Your task to perform on an android device: toggle location history Image 0: 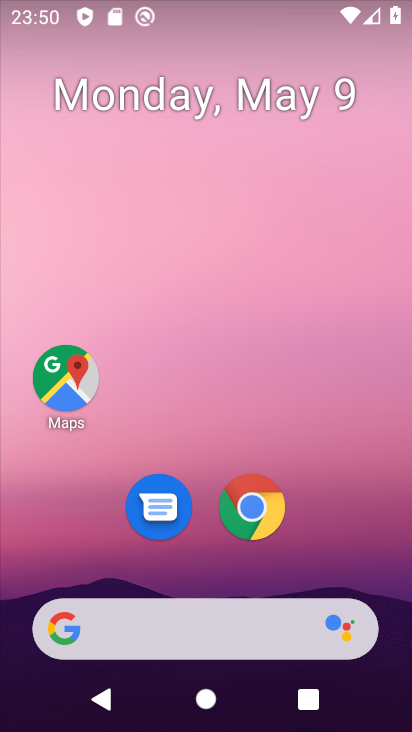
Step 0: drag from (355, 555) to (301, 167)
Your task to perform on an android device: toggle location history Image 1: 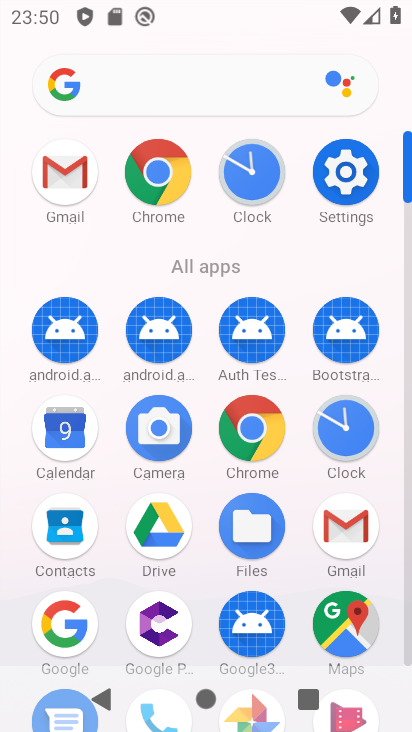
Step 1: drag from (293, 288) to (276, 125)
Your task to perform on an android device: toggle location history Image 2: 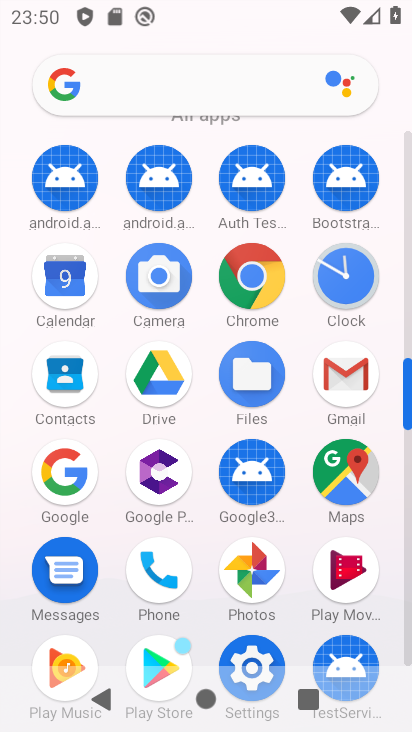
Step 2: click (258, 643)
Your task to perform on an android device: toggle location history Image 3: 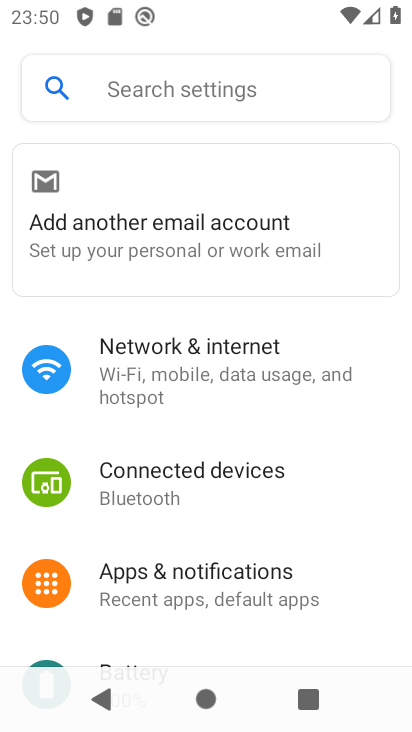
Step 3: drag from (235, 579) to (193, 264)
Your task to perform on an android device: toggle location history Image 4: 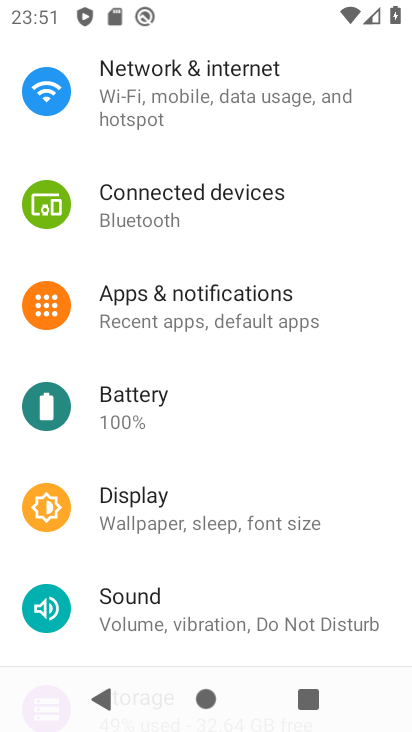
Step 4: drag from (200, 573) to (185, 348)
Your task to perform on an android device: toggle location history Image 5: 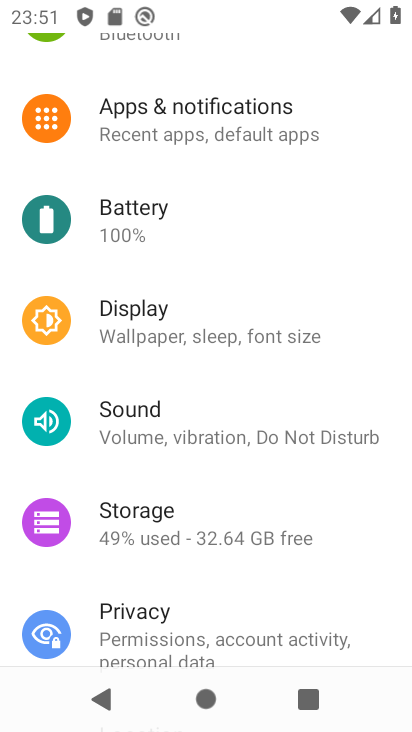
Step 5: drag from (202, 576) to (186, 361)
Your task to perform on an android device: toggle location history Image 6: 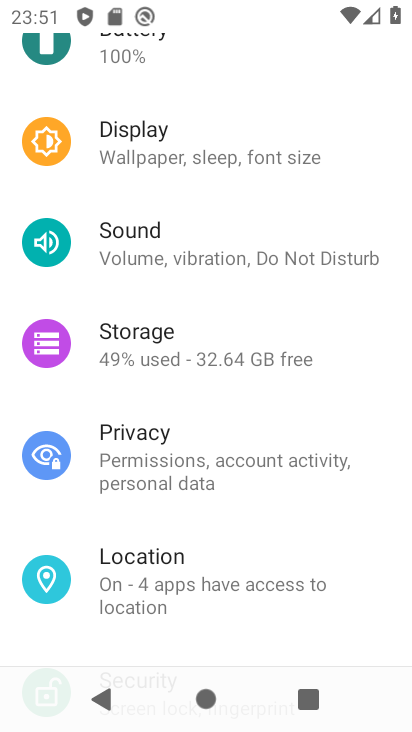
Step 6: click (160, 560)
Your task to perform on an android device: toggle location history Image 7: 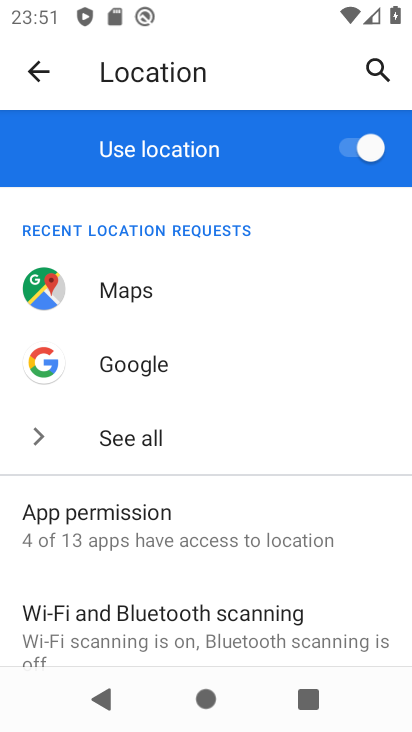
Step 7: drag from (229, 577) to (208, 374)
Your task to perform on an android device: toggle location history Image 8: 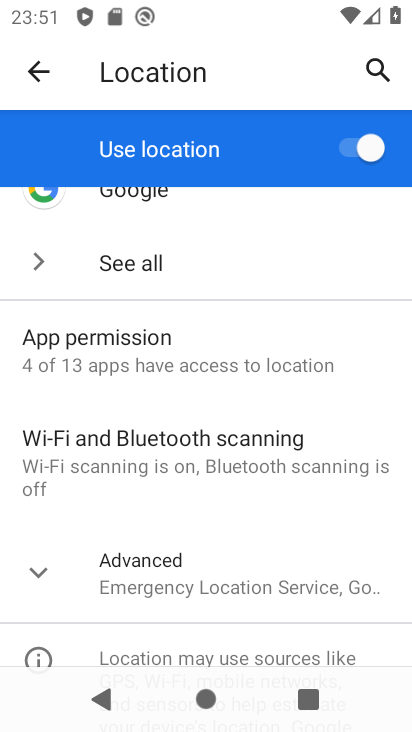
Step 8: click (173, 573)
Your task to perform on an android device: toggle location history Image 9: 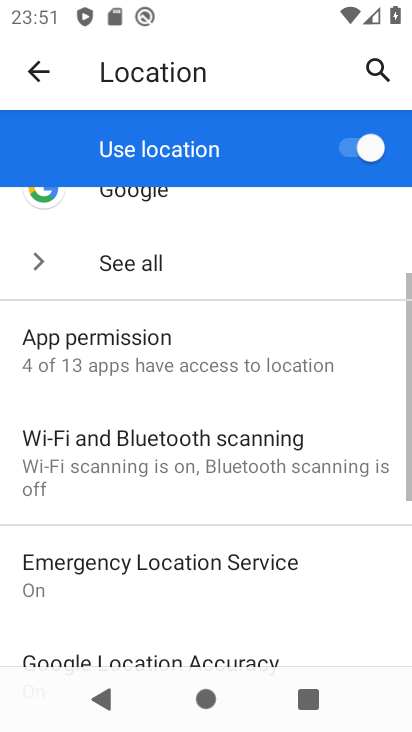
Step 9: drag from (193, 582) to (191, 363)
Your task to perform on an android device: toggle location history Image 10: 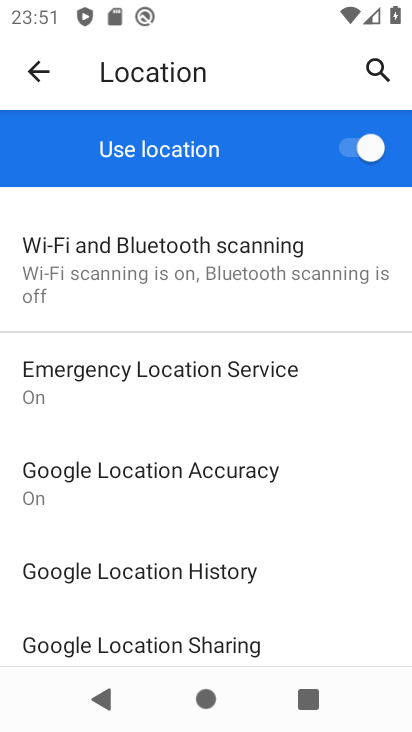
Step 10: click (223, 572)
Your task to perform on an android device: toggle location history Image 11: 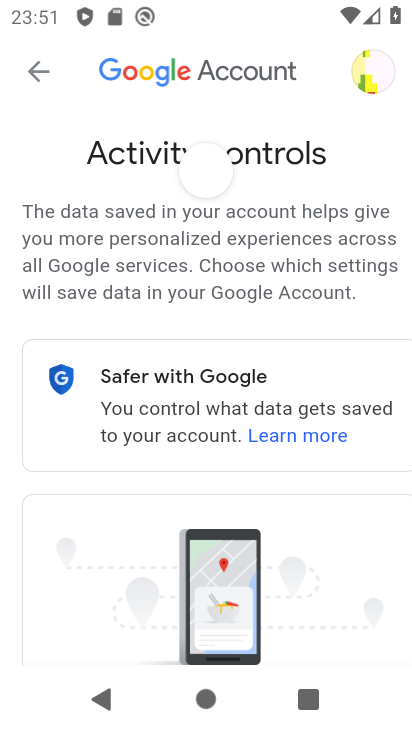
Step 11: drag from (282, 601) to (239, 315)
Your task to perform on an android device: toggle location history Image 12: 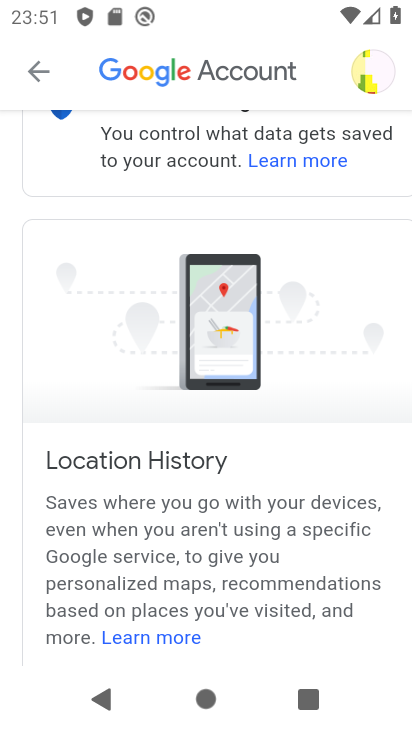
Step 12: drag from (217, 641) to (192, 318)
Your task to perform on an android device: toggle location history Image 13: 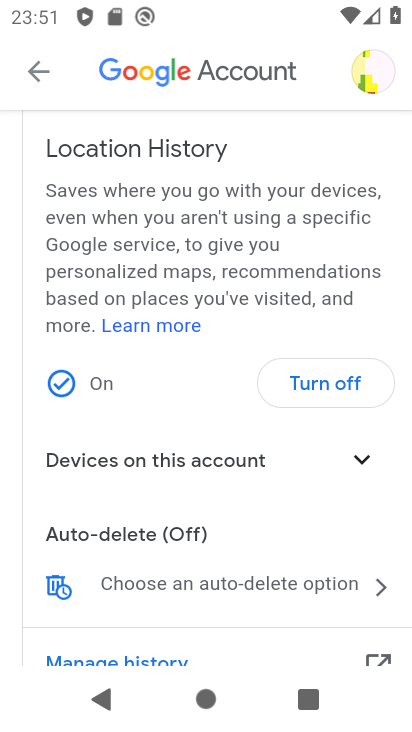
Step 13: click (304, 379)
Your task to perform on an android device: toggle location history Image 14: 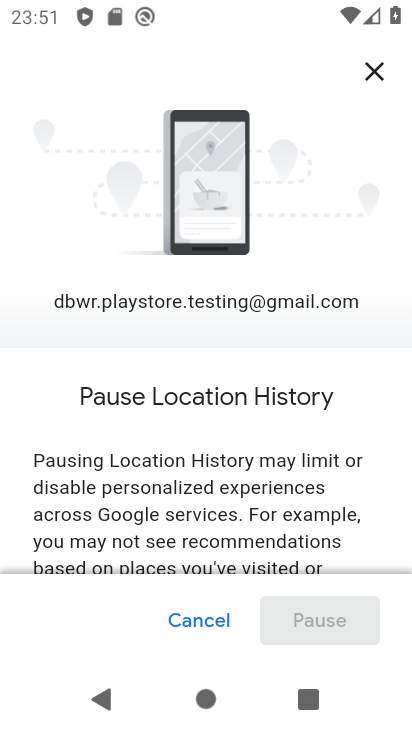
Step 14: drag from (275, 555) to (261, 197)
Your task to perform on an android device: toggle location history Image 15: 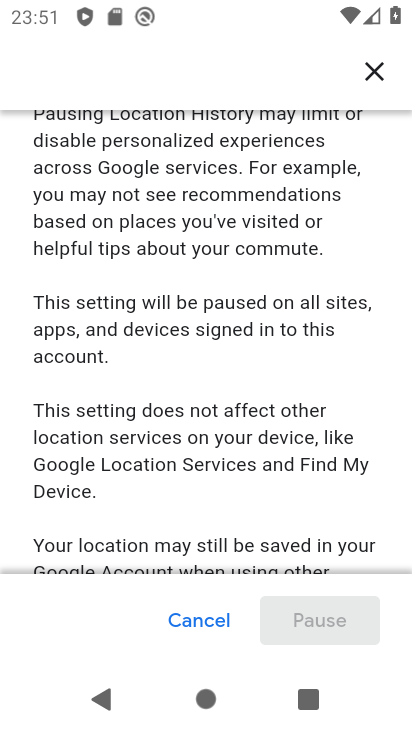
Step 15: drag from (249, 515) to (235, 151)
Your task to perform on an android device: toggle location history Image 16: 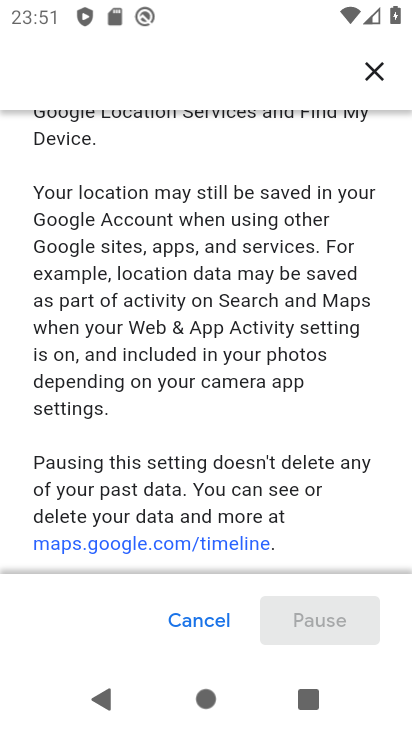
Step 16: drag from (242, 524) to (226, 212)
Your task to perform on an android device: toggle location history Image 17: 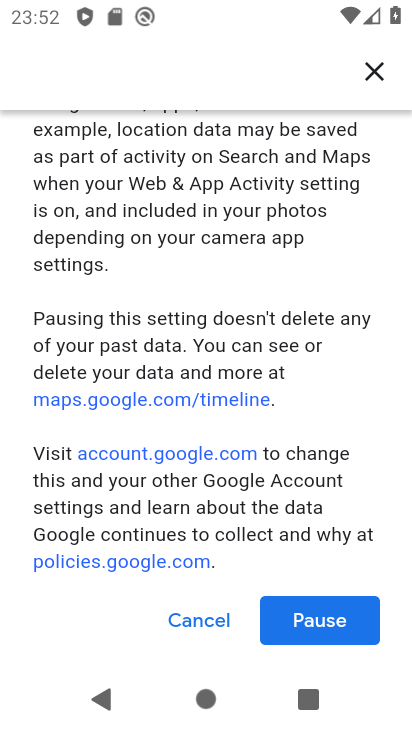
Step 17: click (276, 620)
Your task to perform on an android device: toggle location history Image 18: 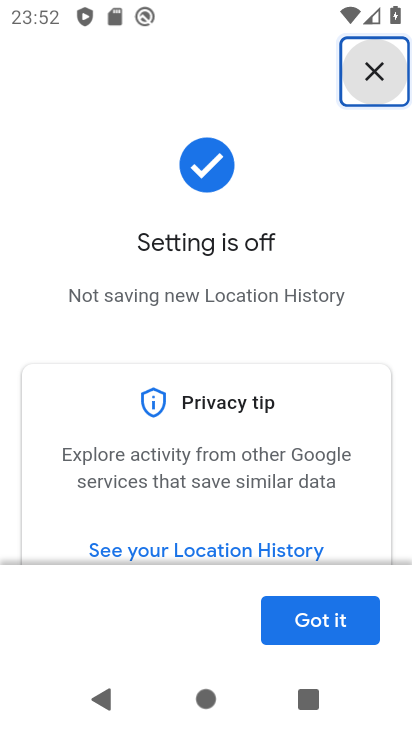
Step 18: click (308, 616)
Your task to perform on an android device: toggle location history Image 19: 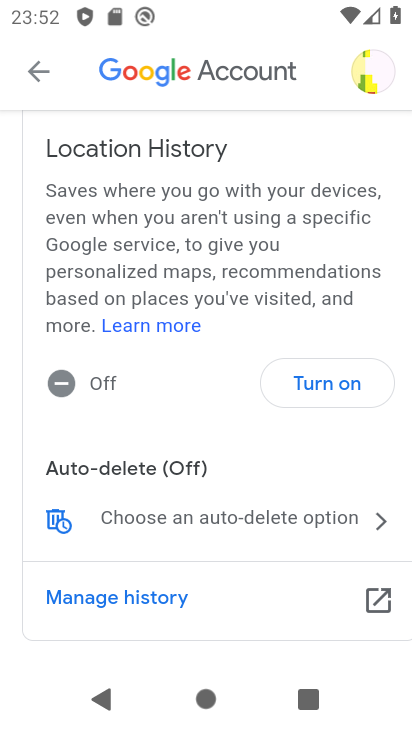
Step 19: task complete